Your task to perform on an android device: allow cookies in the chrome app Image 0: 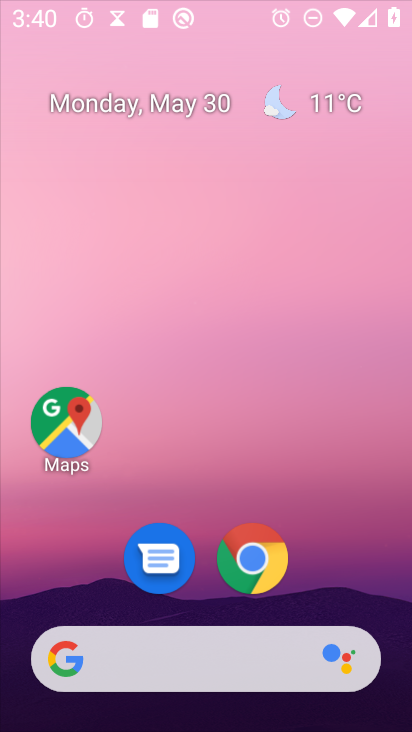
Step 0: click (283, 99)
Your task to perform on an android device: allow cookies in the chrome app Image 1: 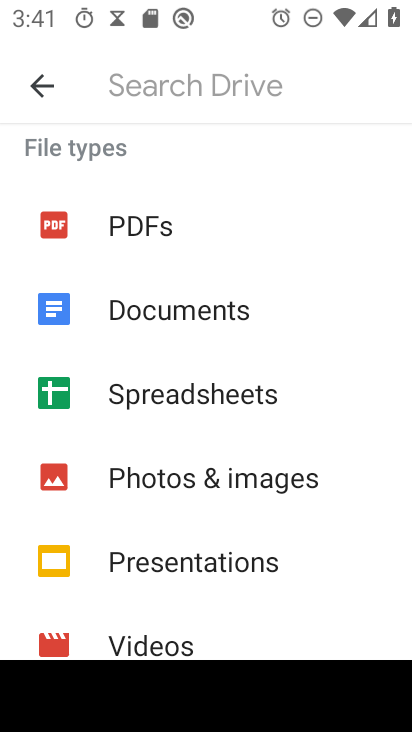
Step 1: press back button
Your task to perform on an android device: allow cookies in the chrome app Image 2: 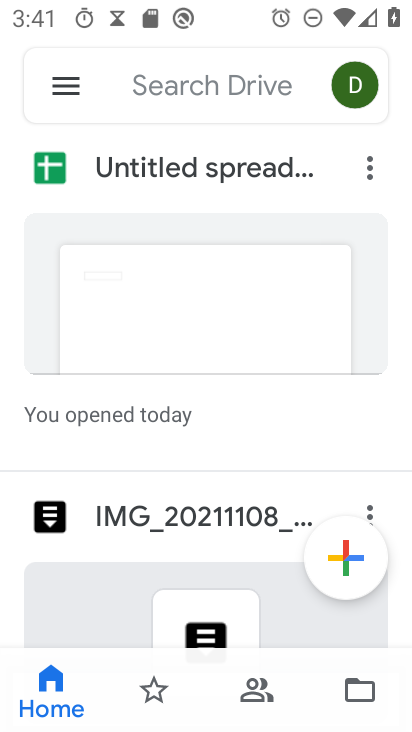
Step 2: press back button
Your task to perform on an android device: allow cookies in the chrome app Image 3: 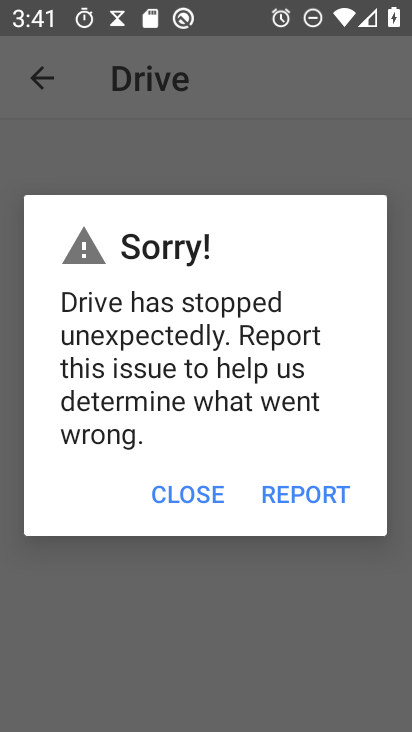
Step 3: press home button
Your task to perform on an android device: allow cookies in the chrome app Image 4: 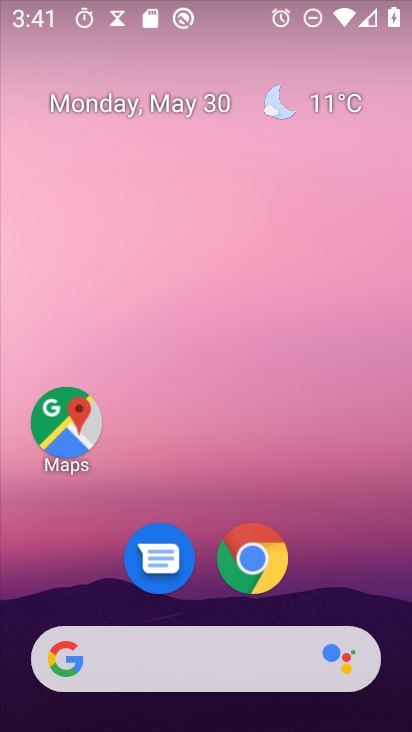
Step 4: click (255, 550)
Your task to perform on an android device: allow cookies in the chrome app Image 5: 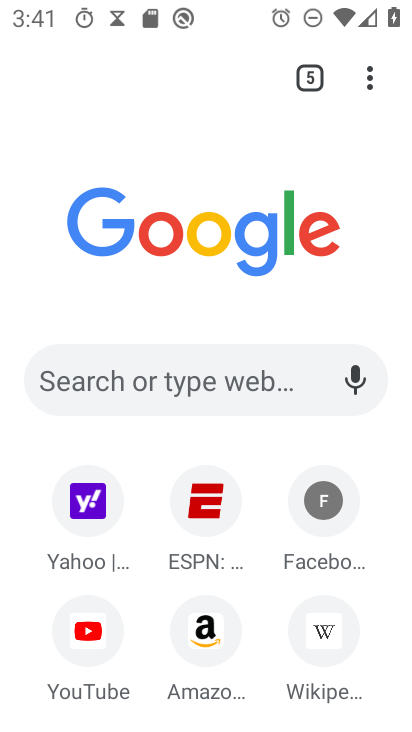
Step 5: drag from (366, 72) to (128, 624)
Your task to perform on an android device: allow cookies in the chrome app Image 6: 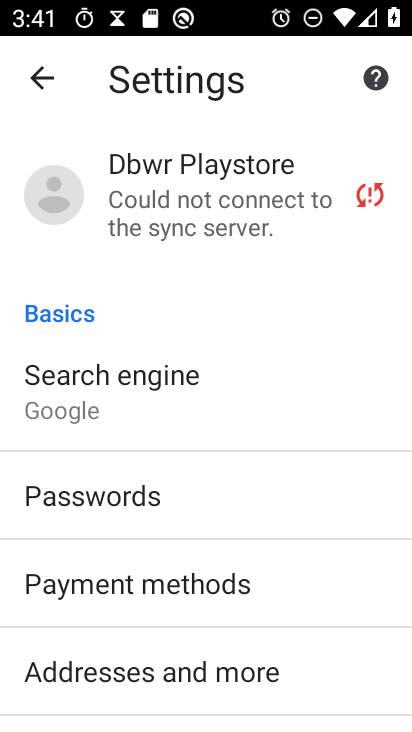
Step 6: drag from (150, 678) to (256, 92)
Your task to perform on an android device: allow cookies in the chrome app Image 7: 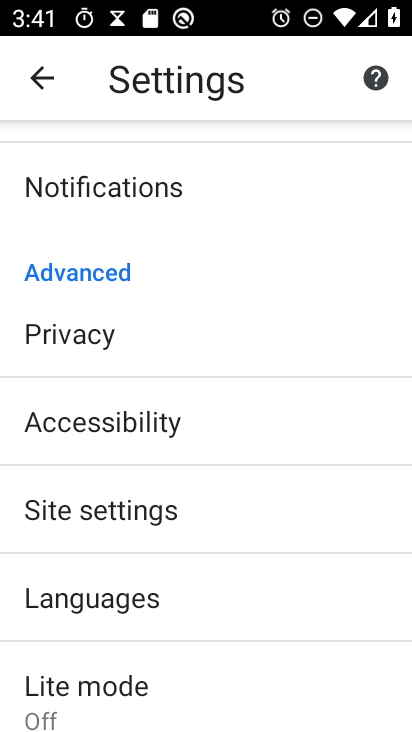
Step 7: click (123, 520)
Your task to perform on an android device: allow cookies in the chrome app Image 8: 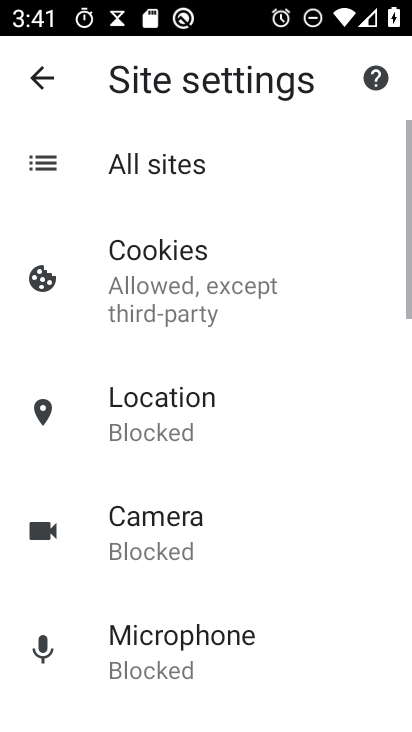
Step 8: click (162, 241)
Your task to perform on an android device: allow cookies in the chrome app Image 9: 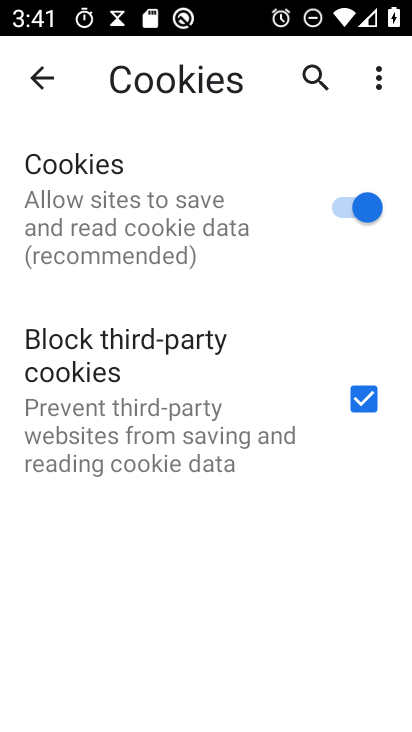
Step 9: task complete